Your task to perform on an android device: Go to CNN.com Image 0: 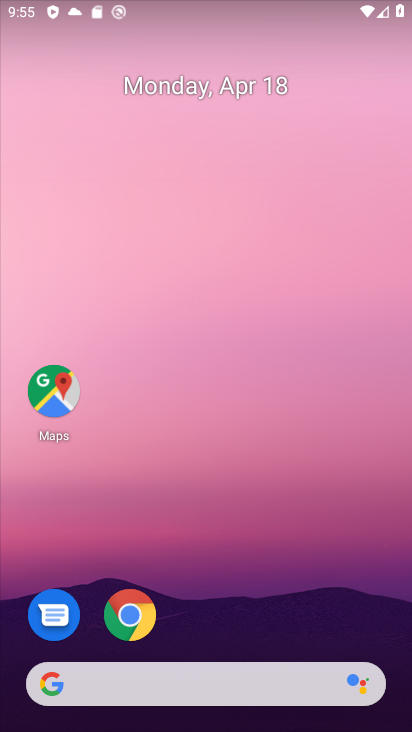
Step 0: click (129, 628)
Your task to perform on an android device: Go to CNN.com Image 1: 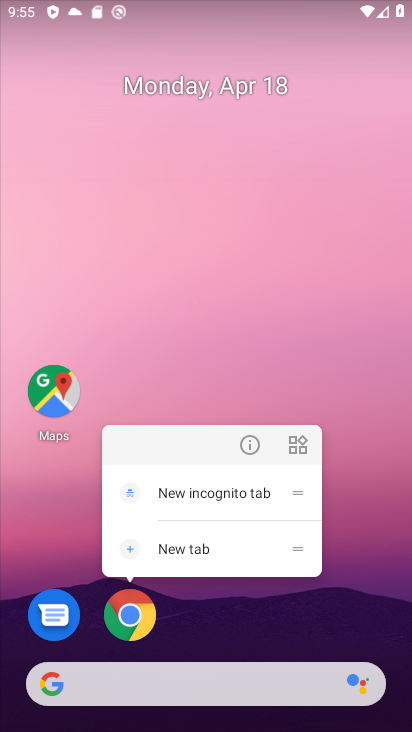
Step 1: click (134, 618)
Your task to perform on an android device: Go to CNN.com Image 2: 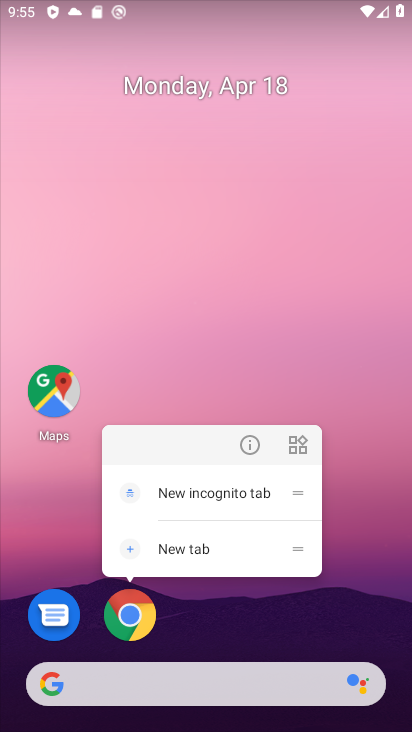
Step 2: click (136, 609)
Your task to perform on an android device: Go to CNN.com Image 3: 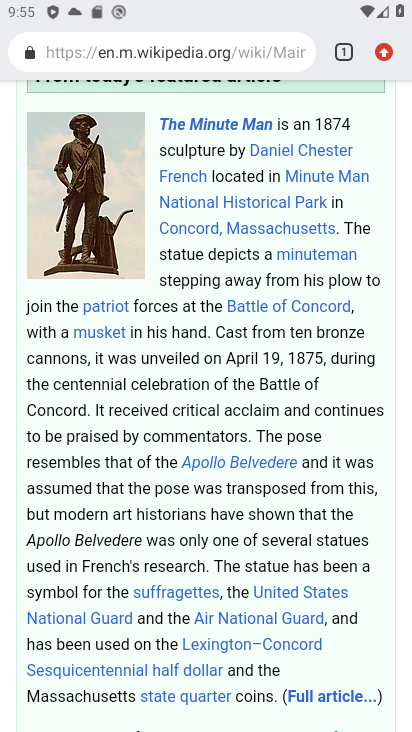
Step 3: click (155, 54)
Your task to perform on an android device: Go to CNN.com Image 4: 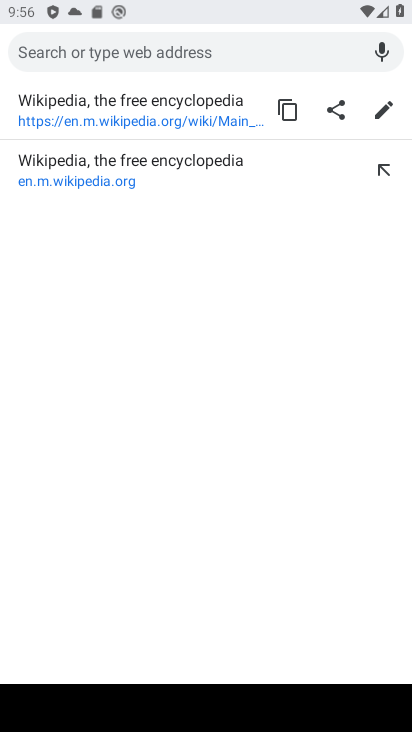
Step 4: type "cnn.com"
Your task to perform on an android device: Go to CNN.com Image 5: 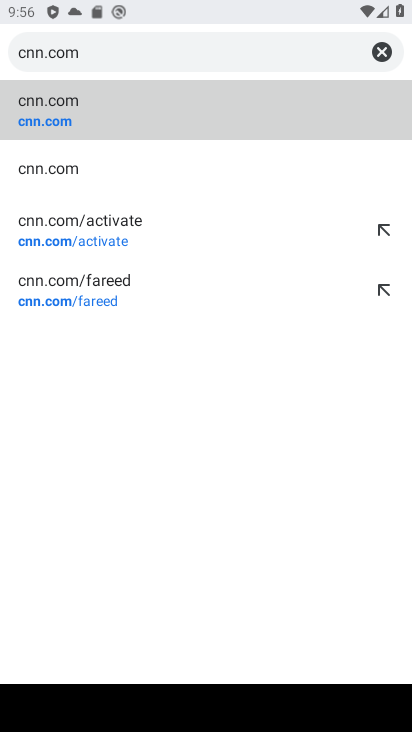
Step 5: click (42, 120)
Your task to perform on an android device: Go to CNN.com Image 6: 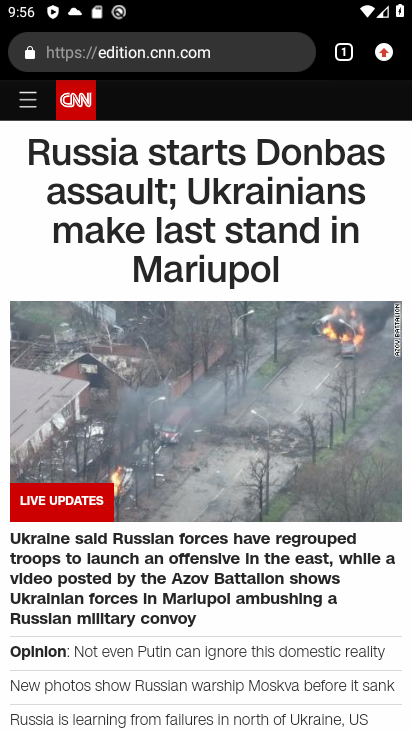
Step 6: task complete